Your task to perform on an android device: toggle priority inbox in the gmail app Image 0: 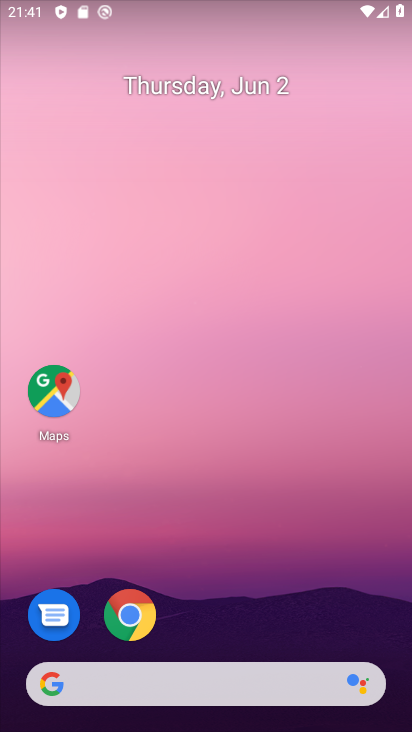
Step 0: drag from (246, 612) to (273, 79)
Your task to perform on an android device: toggle priority inbox in the gmail app Image 1: 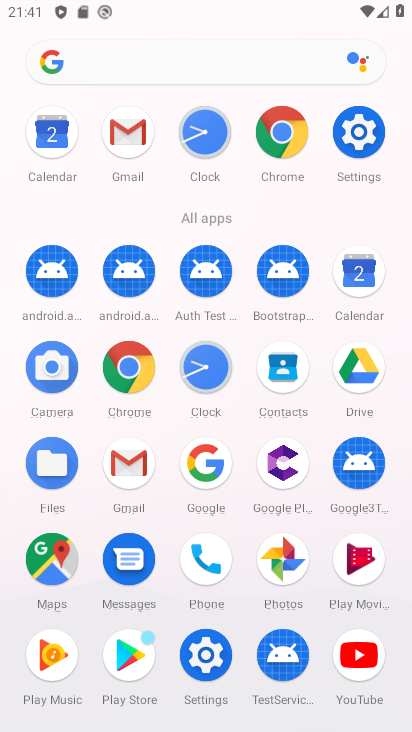
Step 1: click (129, 146)
Your task to perform on an android device: toggle priority inbox in the gmail app Image 2: 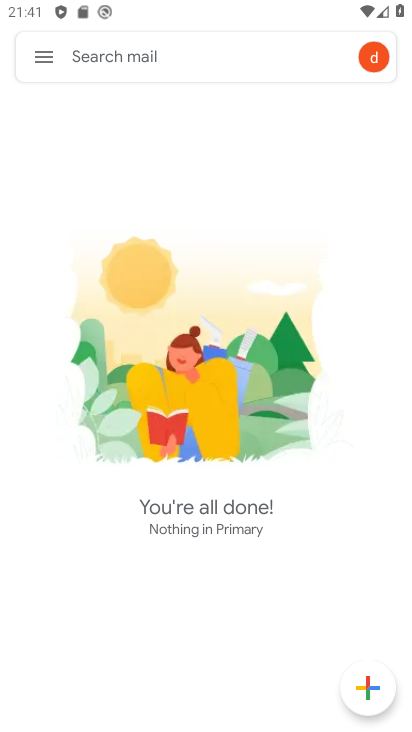
Step 2: click (46, 54)
Your task to perform on an android device: toggle priority inbox in the gmail app Image 3: 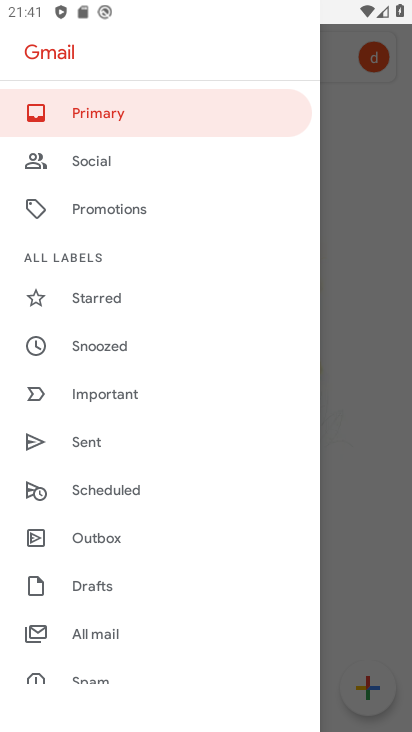
Step 3: drag from (106, 607) to (205, 258)
Your task to perform on an android device: toggle priority inbox in the gmail app Image 4: 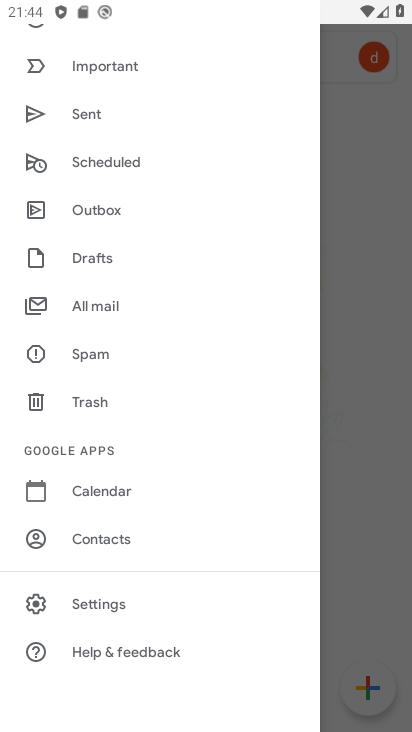
Step 4: click (124, 605)
Your task to perform on an android device: toggle priority inbox in the gmail app Image 5: 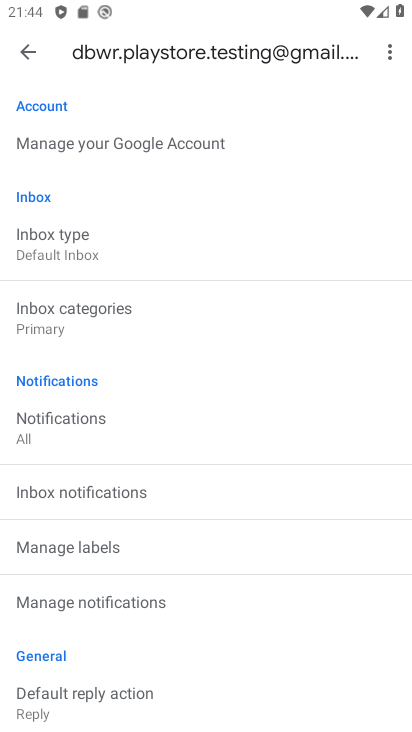
Step 5: click (96, 255)
Your task to perform on an android device: toggle priority inbox in the gmail app Image 6: 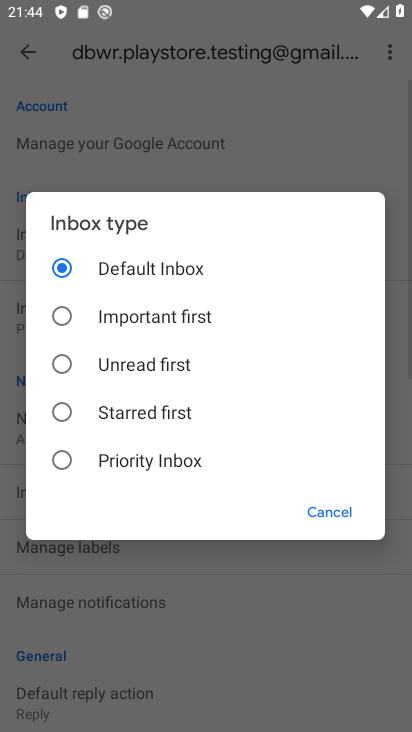
Step 6: click (149, 454)
Your task to perform on an android device: toggle priority inbox in the gmail app Image 7: 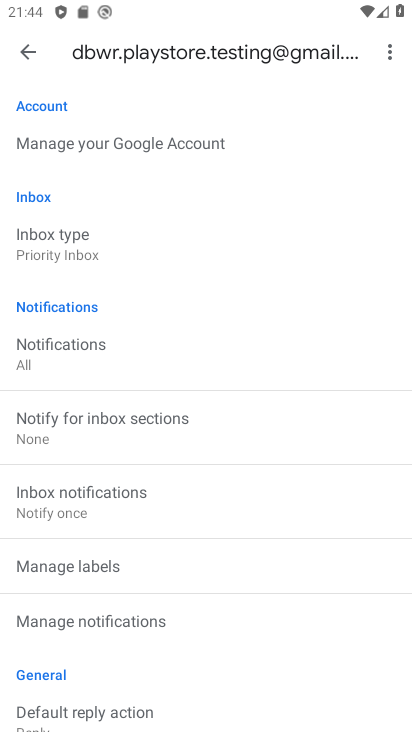
Step 7: task complete